Your task to perform on an android device: Open Google Chrome Image 0: 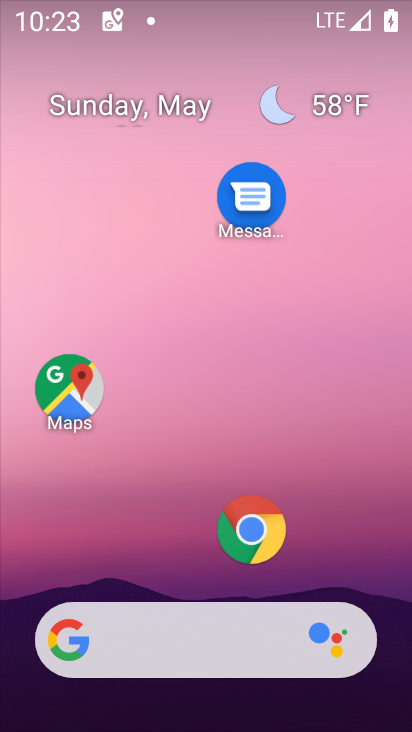
Step 0: drag from (187, 571) to (194, 6)
Your task to perform on an android device: Open Google Chrome Image 1: 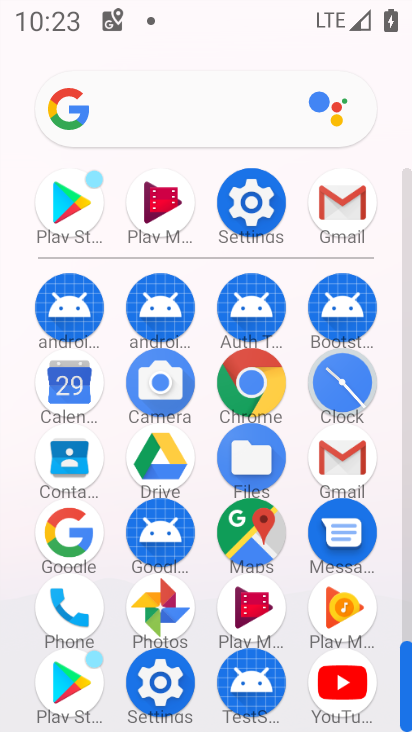
Step 1: click (238, 379)
Your task to perform on an android device: Open Google Chrome Image 2: 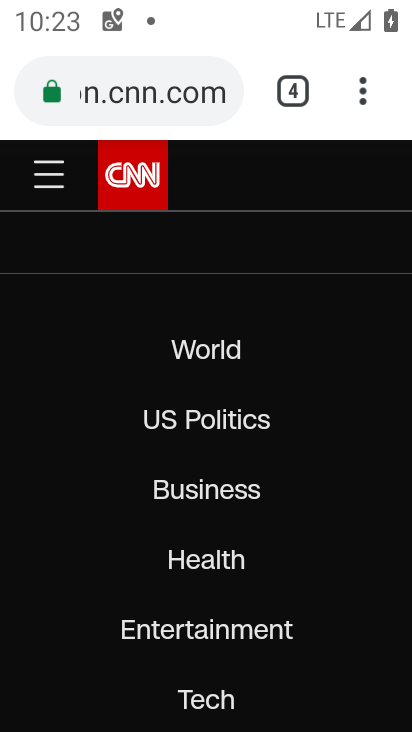
Step 2: task complete